Your task to perform on an android device: When is my next meeting? Image 0: 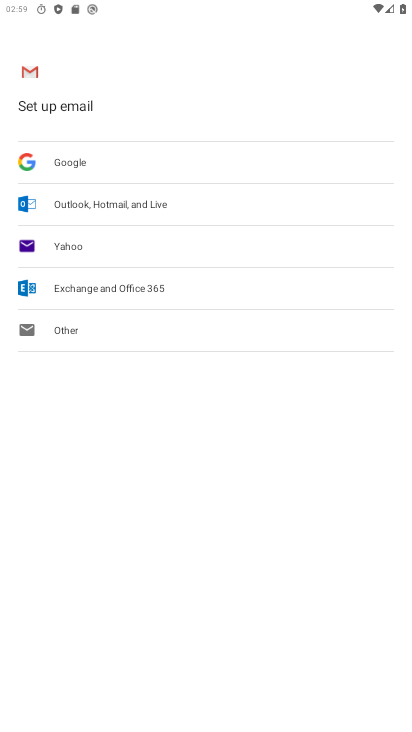
Step 0: press back button
Your task to perform on an android device: When is my next meeting? Image 1: 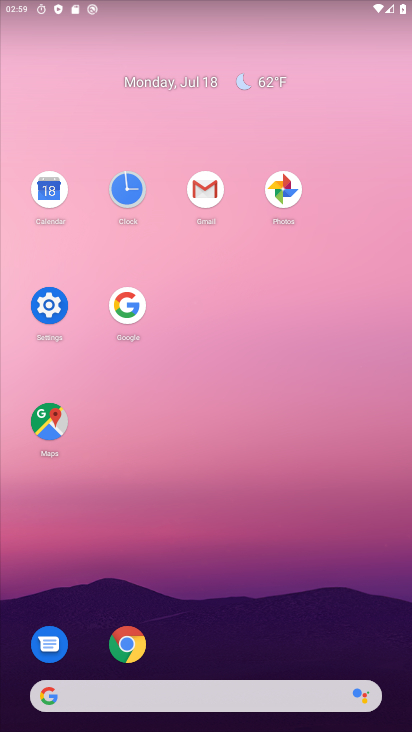
Step 1: click (50, 183)
Your task to perform on an android device: When is my next meeting? Image 2: 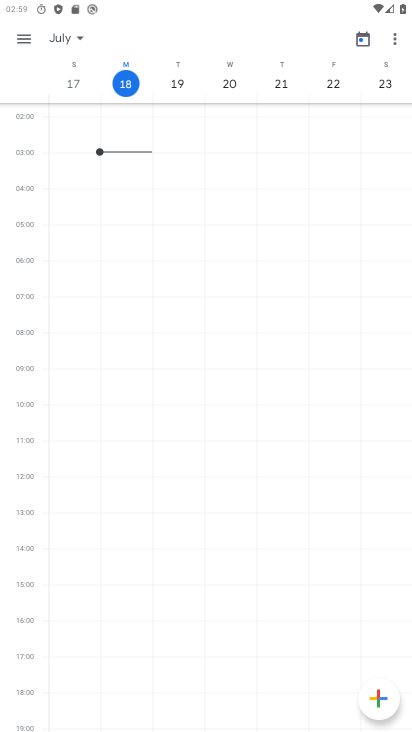
Step 2: click (31, 47)
Your task to perform on an android device: When is my next meeting? Image 3: 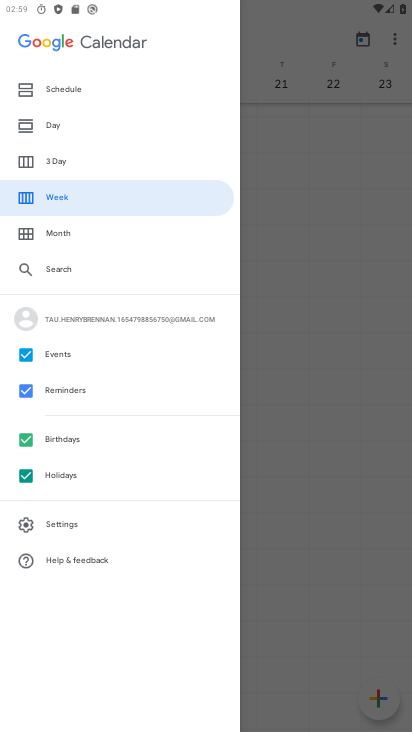
Step 3: click (60, 134)
Your task to perform on an android device: When is my next meeting? Image 4: 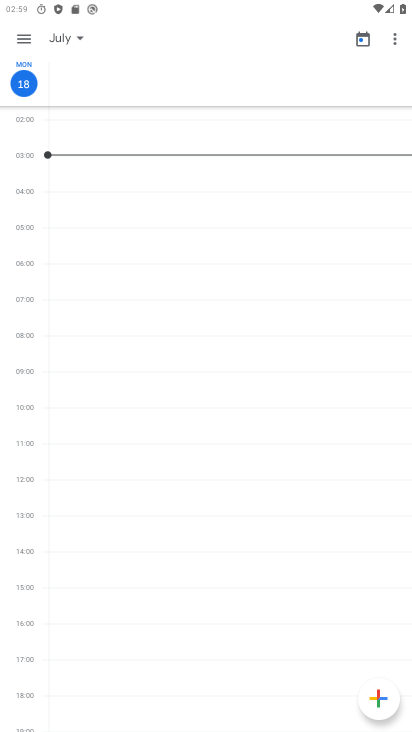
Step 4: task complete